Your task to perform on an android device: Open ESPN.com Image 0: 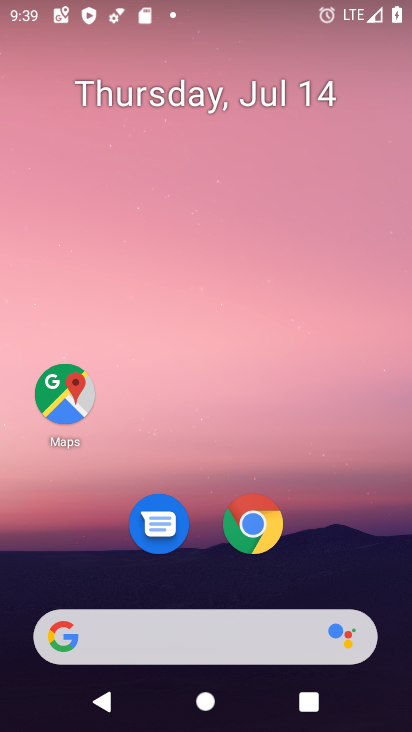
Step 0: click (273, 655)
Your task to perform on an android device: Open ESPN.com Image 1: 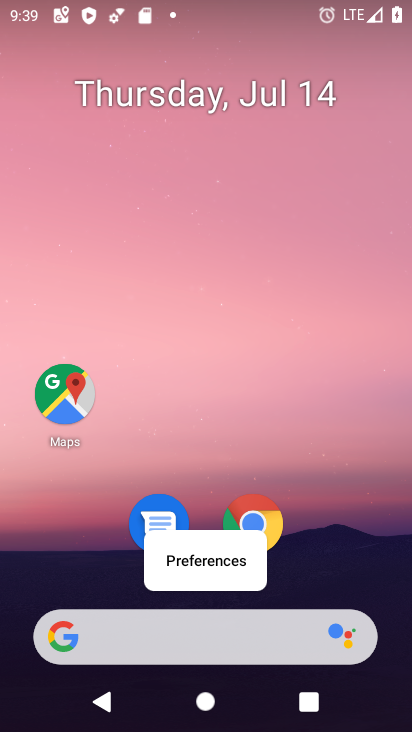
Step 1: click (195, 650)
Your task to perform on an android device: Open ESPN.com Image 2: 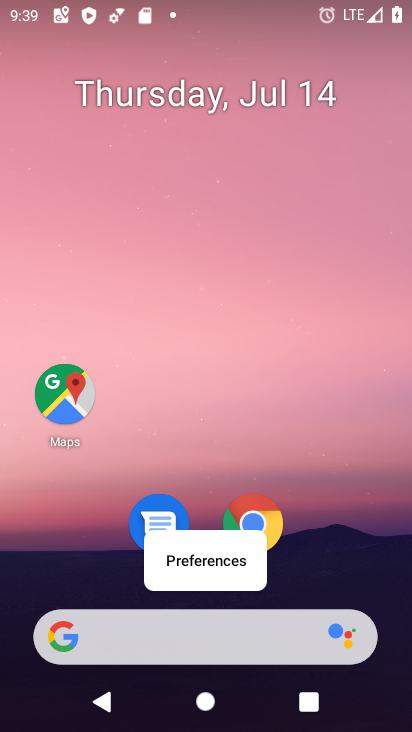
Step 2: click (171, 641)
Your task to perform on an android device: Open ESPN.com Image 3: 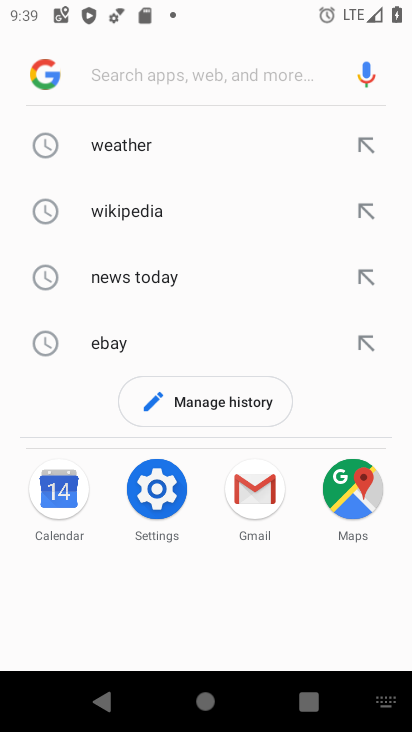
Step 3: type "espn.com"
Your task to perform on an android device: Open ESPN.com Image 4: 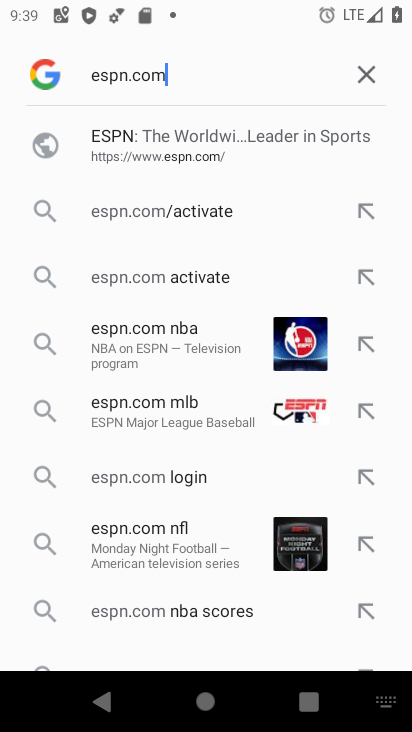
Step 4: click (166, 133)
Your task to perform on an android device: Open ESPN.com Image 5: 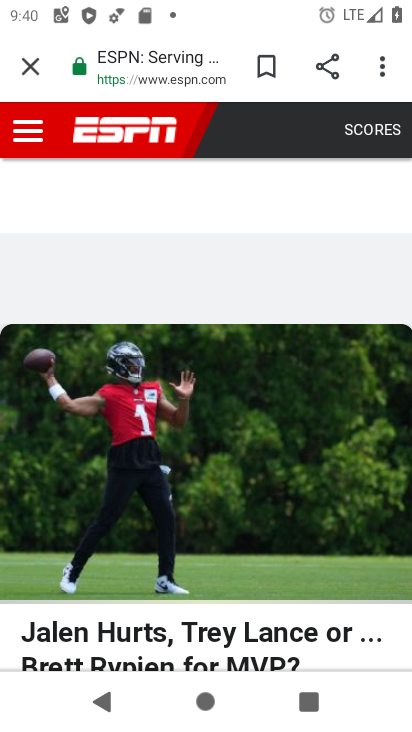
Step 5: task complete